Your task to perform on an android device: search for starred emails in the gmail app Image 0: 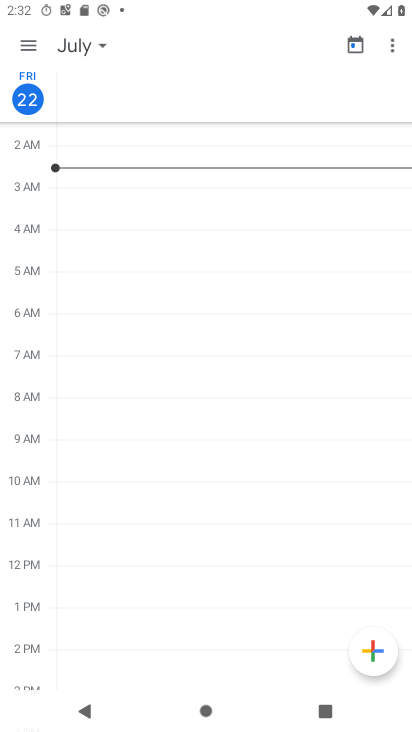
Step 0: press home button
Your task to perform on an android device: search for starred emails in the gmail app Image 1: 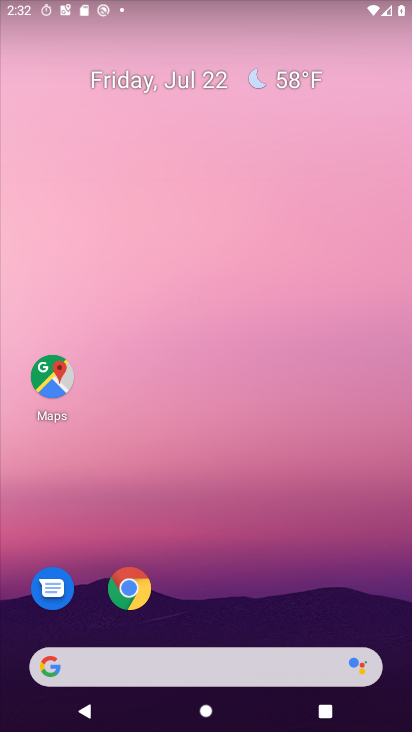
Step 1: drag from (228, 602) to (237, 60)
Your task to perform on an android device: search for starred emails in the gmail app Image 2: 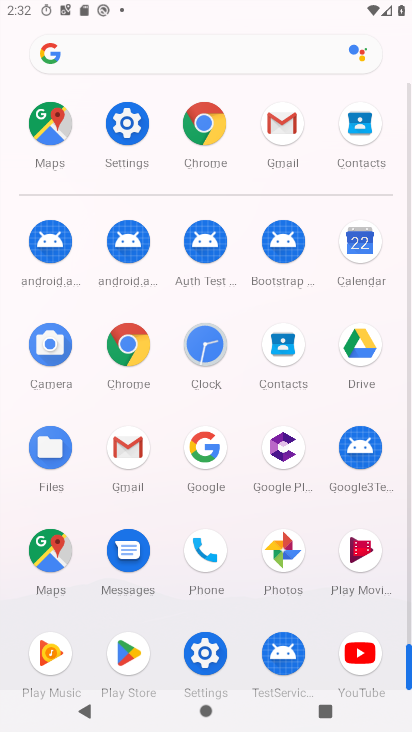
Step 2: click (124, 437)
Your task to perform on an android device: search for starred emails in the gmail app Image 3: 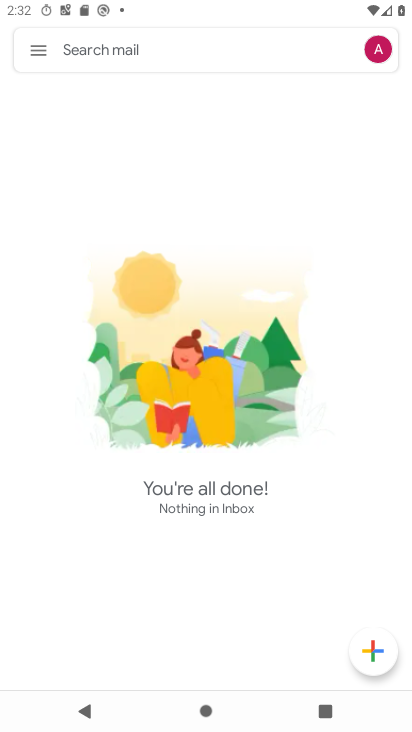
Step 3: task complete